Your task to perform on an android device: turn off wifi Image 0: 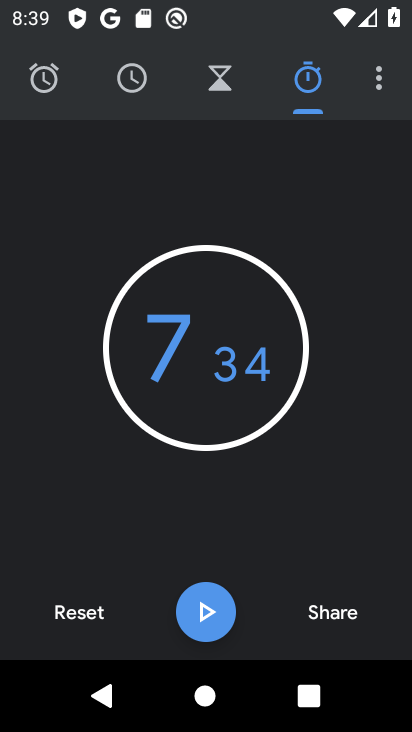
Step 0: press back button
Your task to perform on an android device: turn off wifi Image 1: 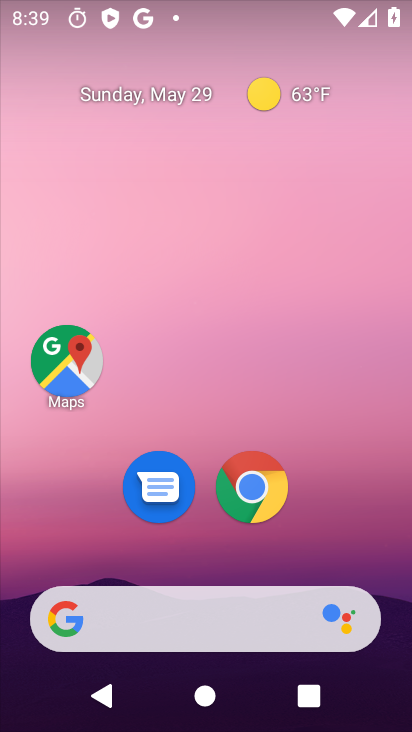
Step 1: drag from (357, 565) to (204, 122)
Your task to perform on an android device: turn off wifi Image 2: 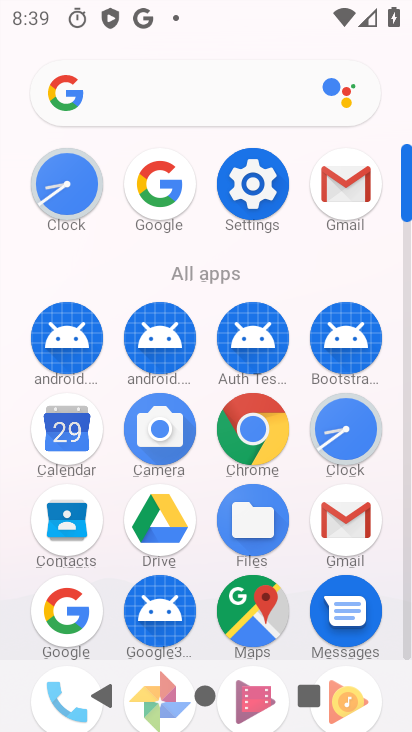
Step 2: click (252, 183)
Your task to perform on an android device: turn off wifi Image 3: 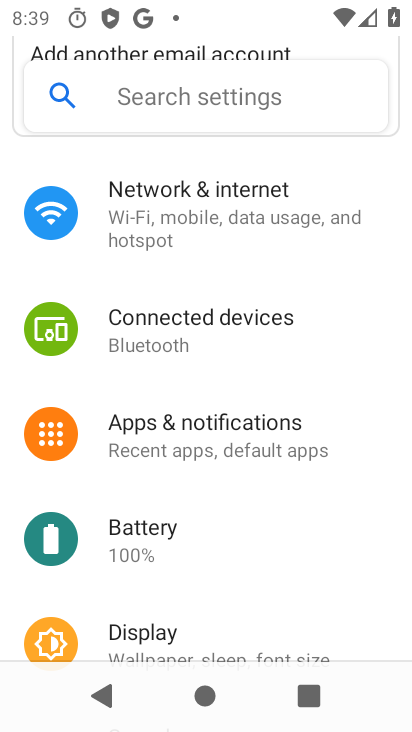
Step 3: click (207, 220)
Your task to perform on an android device: turn off wifi Image 4: 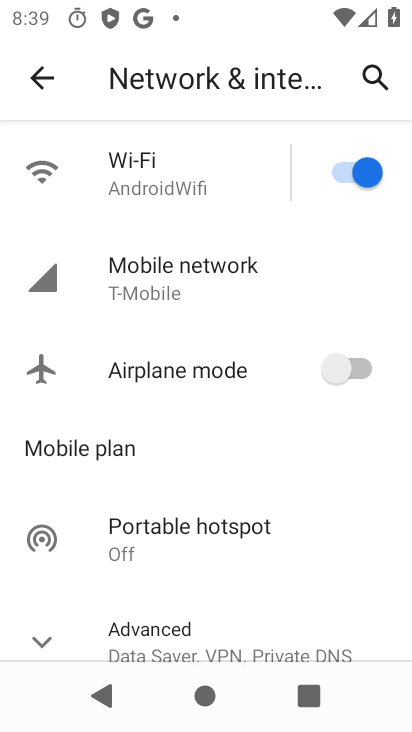
Step 4: click (342, 178)
Your task to perform on an android device: turn off wifi Image 5: 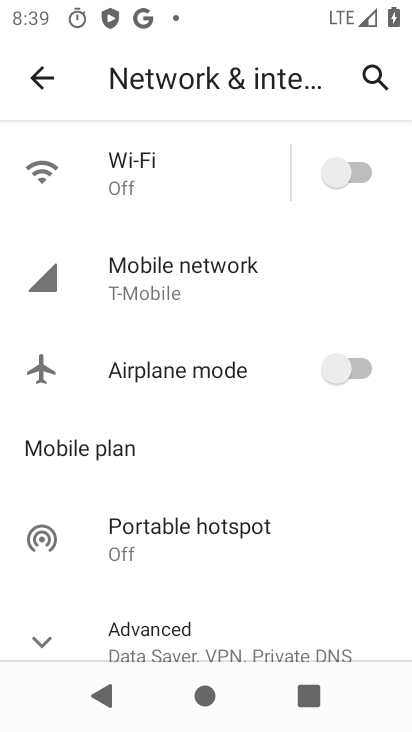
Step 5: task complete